Your task to perform on an android device: Toggle the flashlight Image 0: 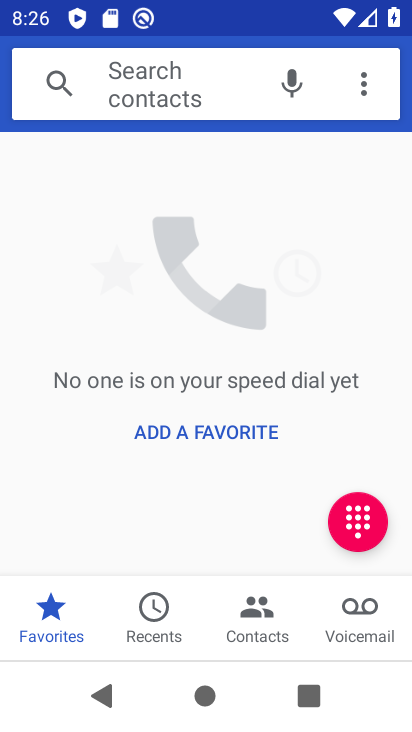
Step 0: press back button
Your task to perform on an android device: Toggle the flashlight Image 1: 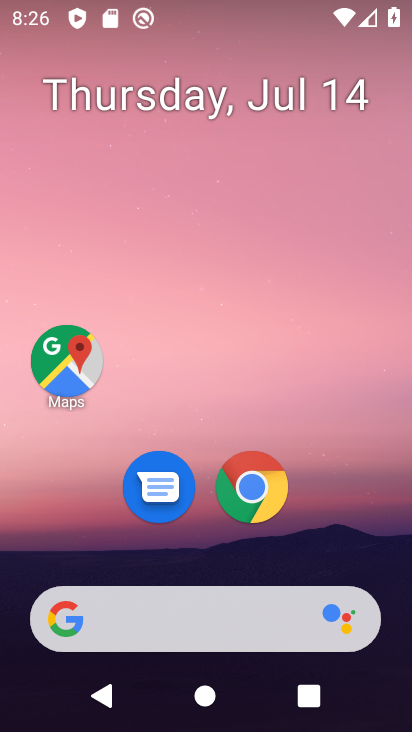
Step 1: drag from (117, 468) to (270, 33)
Your task to perform on an android device: Toggle the flashlight Image 2: 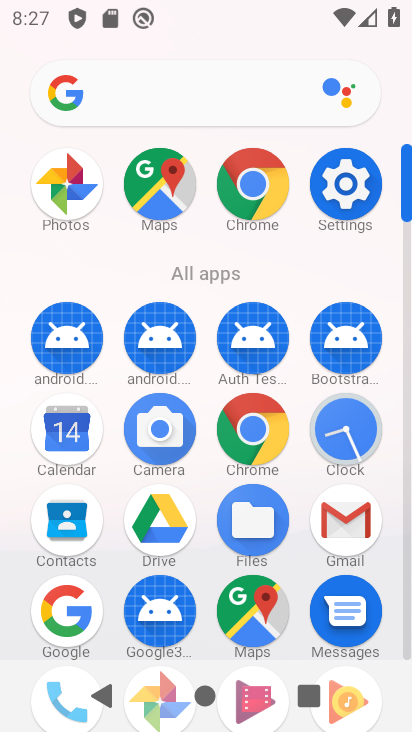
Step 2: click (343, 177)
Your task to perform on an android device: Toggle the flashlight Image 3: 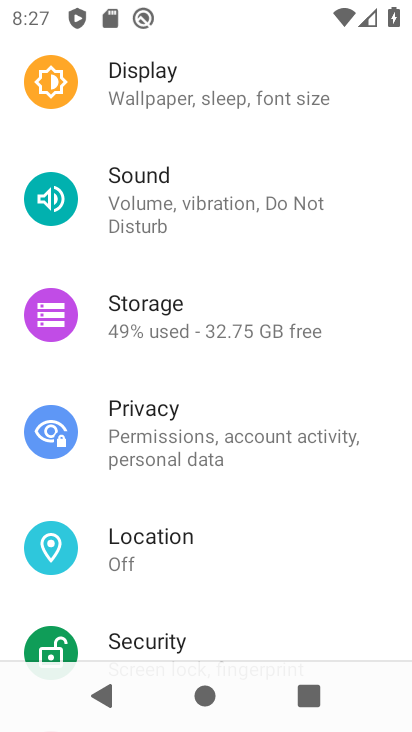
Step 3: drag from (241, 113) to (261, 681)
Your task to perform on an android device: Toggle the flashlight Image 4: 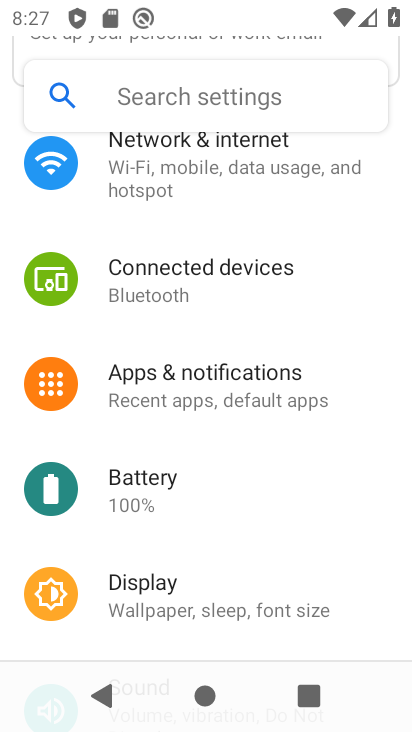
Step 4: drag from (225, 120) to (222, 624)
Your task to perform on an android device: Toggle the flashlight Image 5: 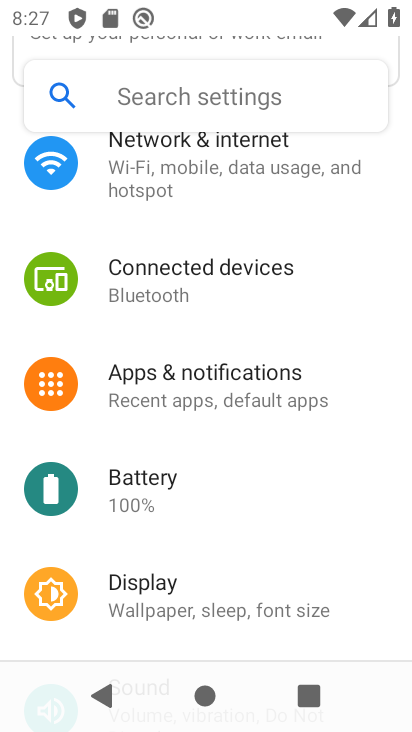
Step 5: drag from (165, 101) to (182, 582)
Your task to perform on an android device: Toggle the flashlight Image 6: 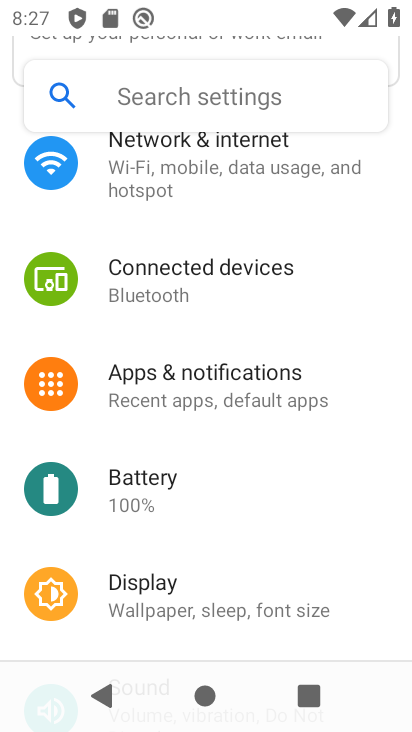
Step 6: drag from (211, 192) to (234, 595)
Your task to perform on an android device: Toggle the flashlight Image 7: 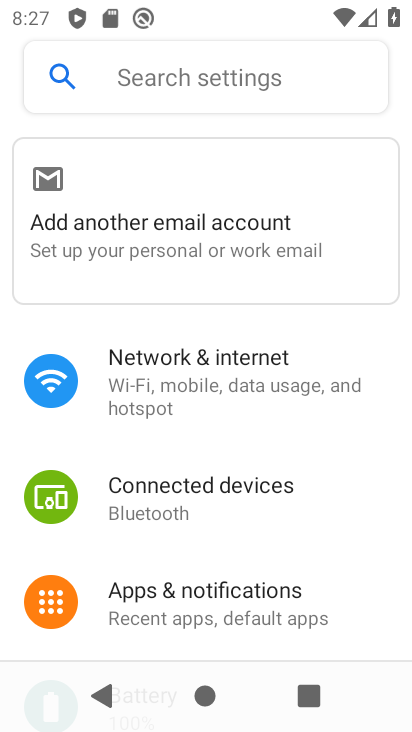
Step 7: click (182, 88)
Your task to perform on an android device: Toggle the flashlight Image 8: 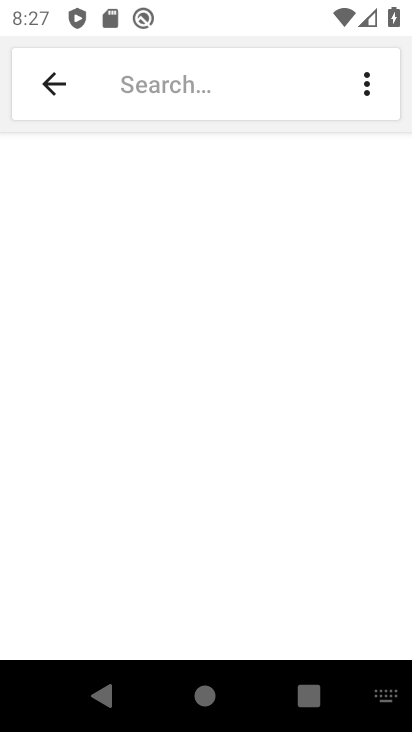
Step 8: type "flashlight"
Your task to perform on an android device: Toggle the flashlight Image 9: 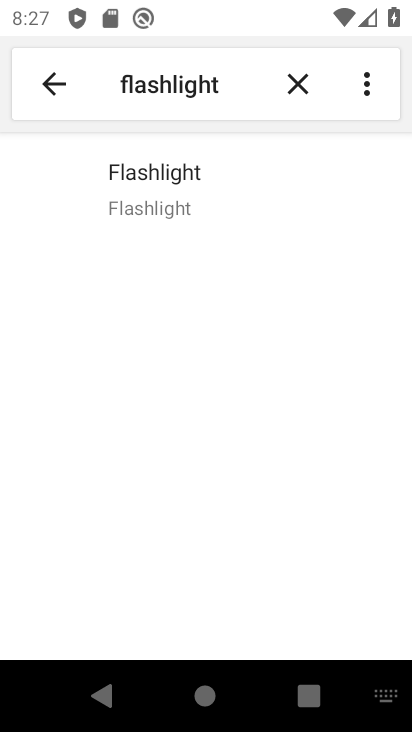
Step 9: click (94, 186)
Your task to perform on an android device: Toggle the flashlight Image 10: 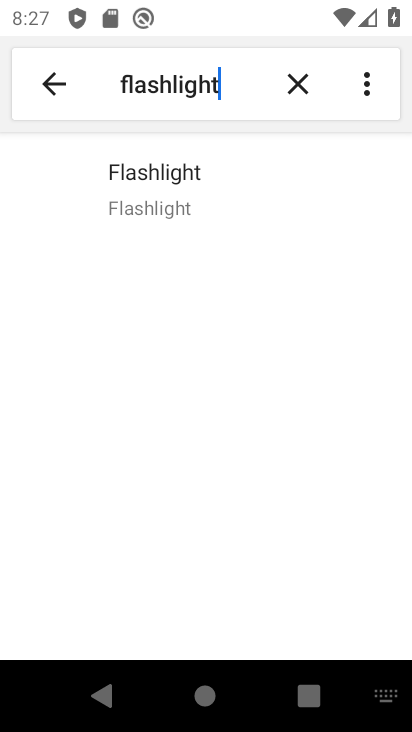
Step 10: task complete